Your task to perform on an android device: turn on priority inbox in the gmail app Image 0: 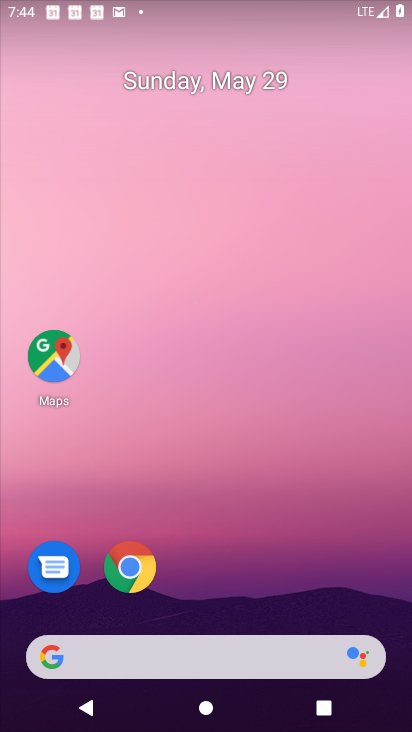
Step 0: drag from (206, 605) to (222, 255)
Your task to perform on an android device: turn on priority inbox in the gmail app Image 1: 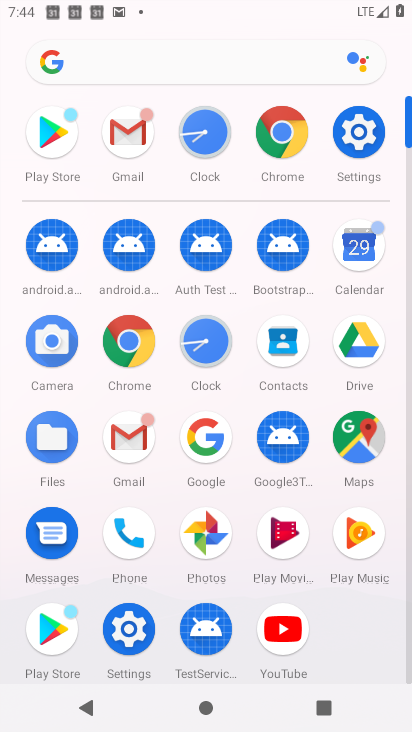
Step 1: click (130, 436)
Your task to perform on an android device: turn on priority inbox in the gmail app Image 2: 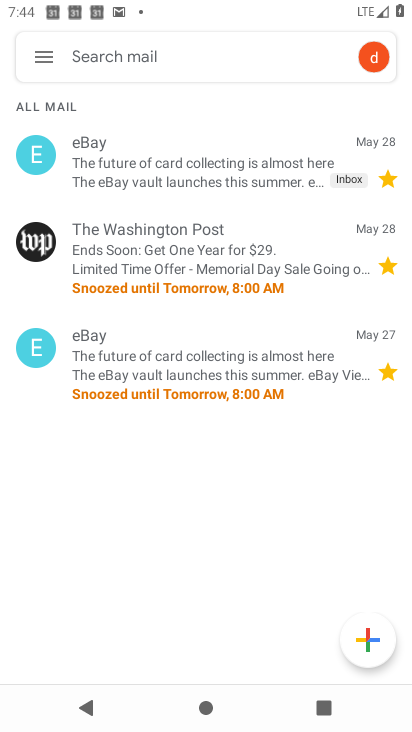
Step 2: click (44, 54)
Your task to perform on an android device: turn on priority inbox in the gmail app Image 3: 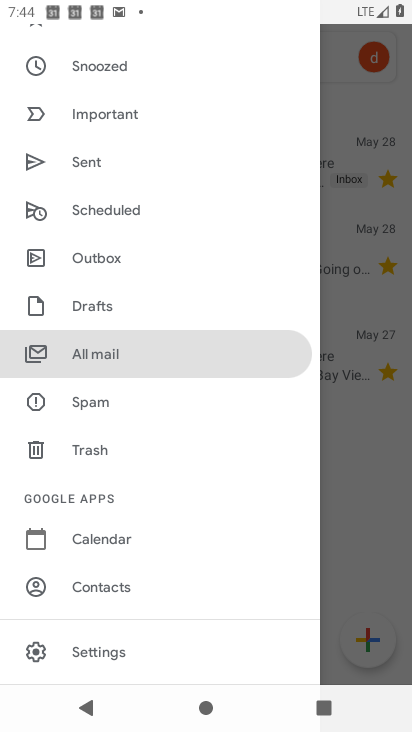
Step 3: click (40, 46)
Your task to perform on an android device: turn on priority inbox in the gmail app Image 4: 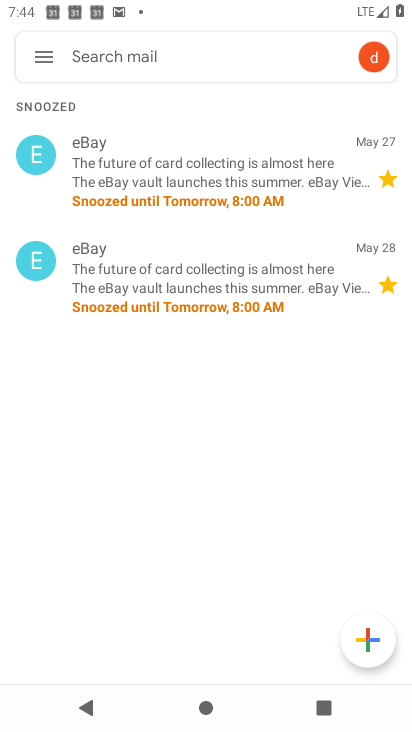
Step 4: click (44, 53)
Your task to perform on an android device: turn on priority inbox in the gmail app Image 5: 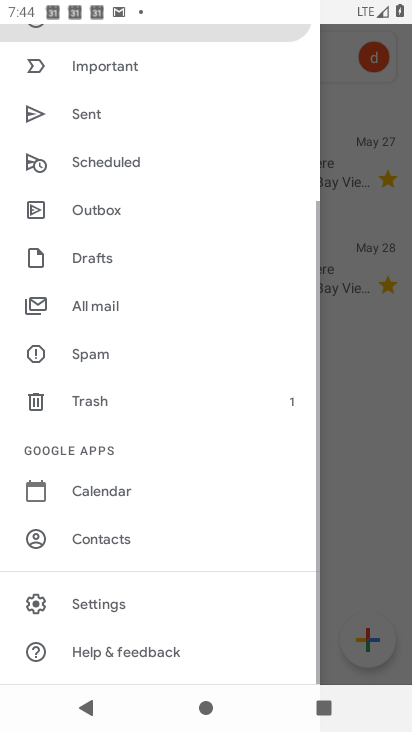
Step 5: click (95, 584)
Your task to perform on an android device: turn on priority inbox in the gmail app Image 6: 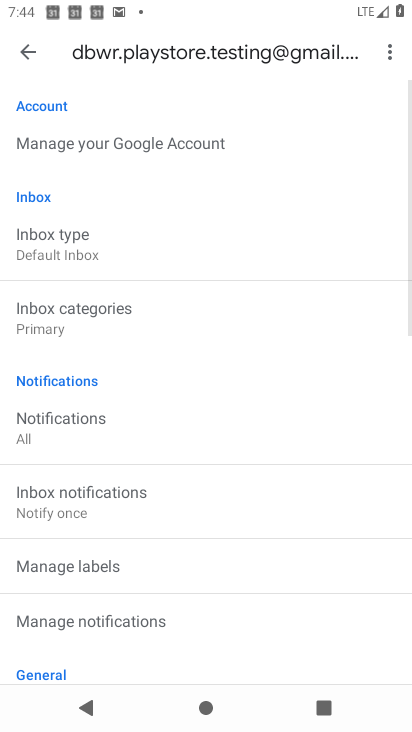
Step 6: click (52, 252)
Your task to perform on an android device: turn on priority inbox in the gmail app Image 7: 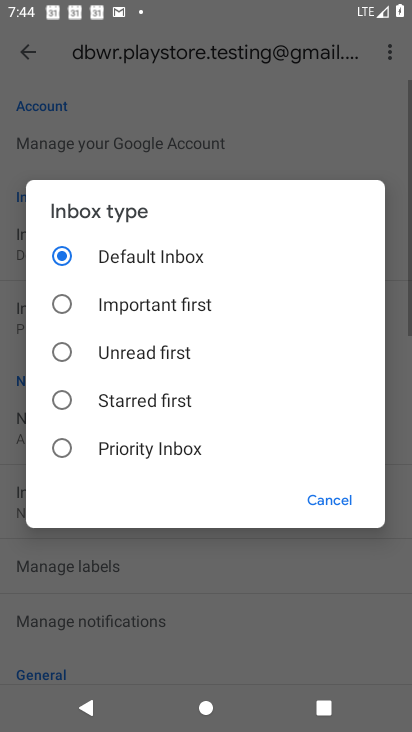
Step 7: click (136, 436)
Your task to perform on an android device: turn on priority inbox in the gmail app Image 8: 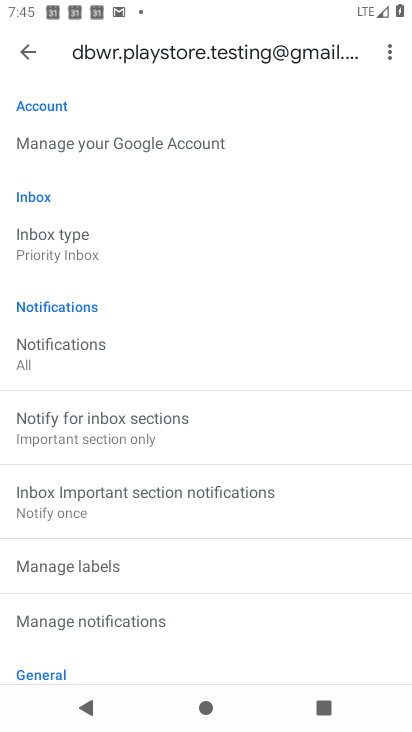
Step 8: task complete